Your task to perform on an android device: What's on my calendar today? Image 0: 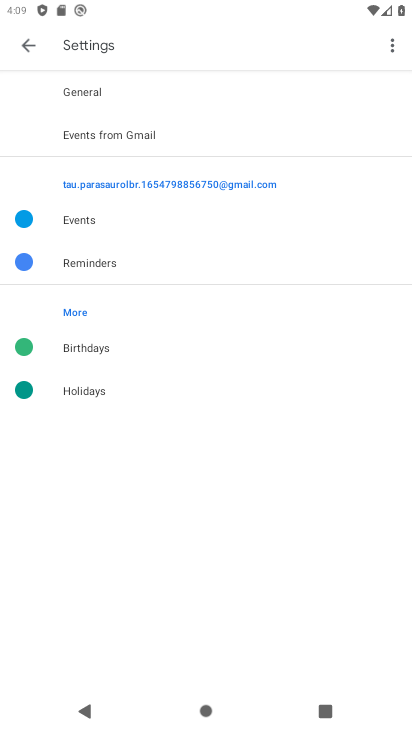
Step 0: press home button
Your task to perform on an android device: What's on my calendar today? Image 1: 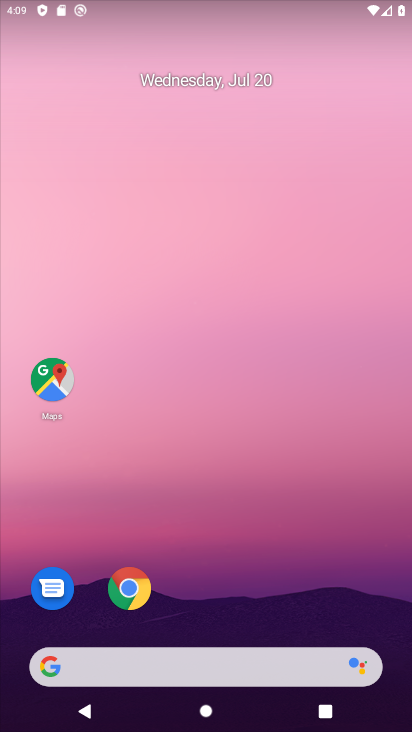
Step 1: drag from (235, 628) to (279, 112)
Your task to perform on an android device: What's on my calendar today? Image 2: 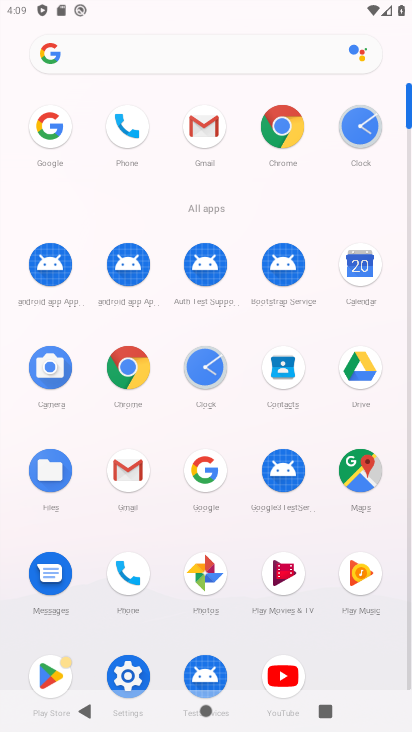
Step 2: click (356, 261)
Your task to perform on an android device: What's on my calendar today? Image 3: 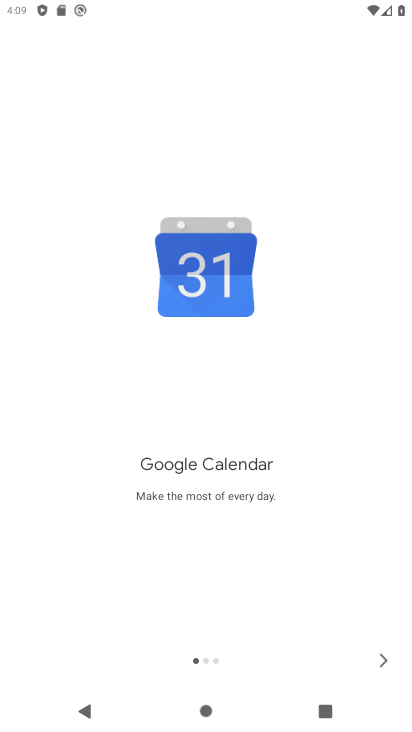
Step 3: click (375, 653)
Your task to perform on an android device: What's on my calendar today? Image 4: 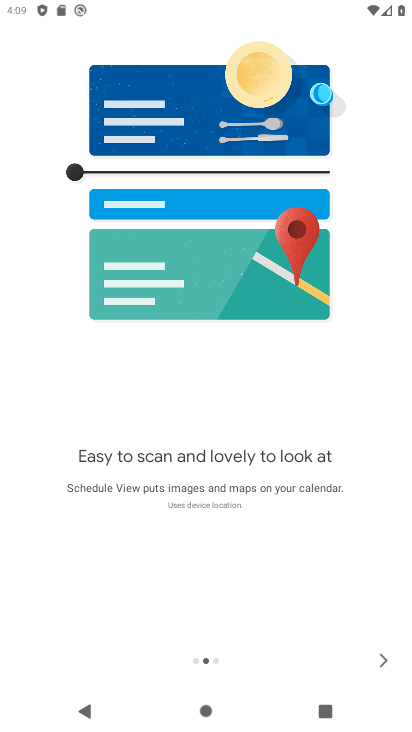
Step 4: click (393, 652)
Your task to perform on an android device: What's on my calendar today? Image 5: 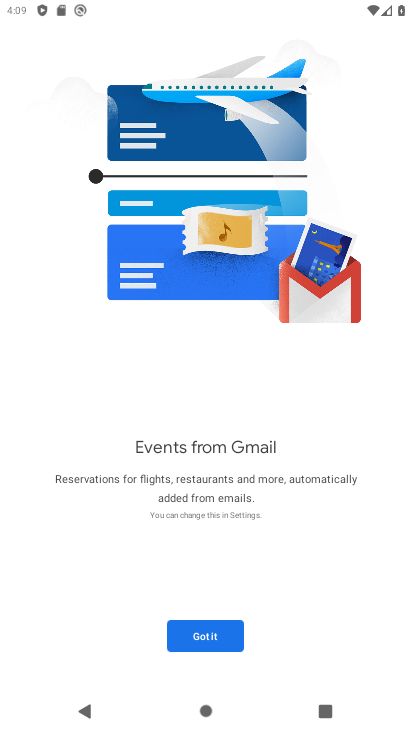
Step 5: click (206, 637)
Your task to perform on an android device: What's on my calendar today? Image 6: 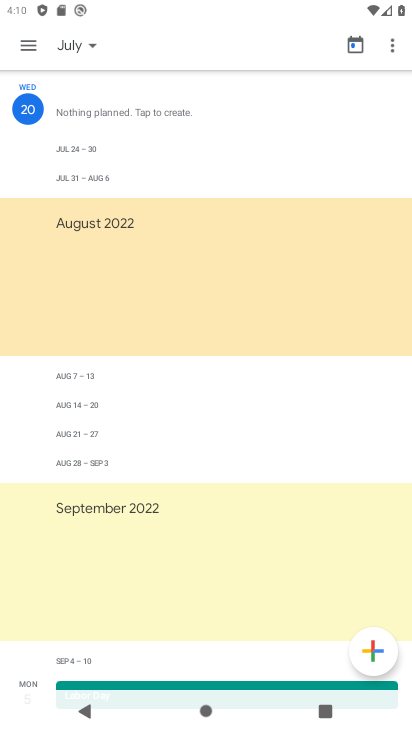
Step 6: click (83, 42)
Your task to perform on an android device: What's on my calendar today? Image 7: 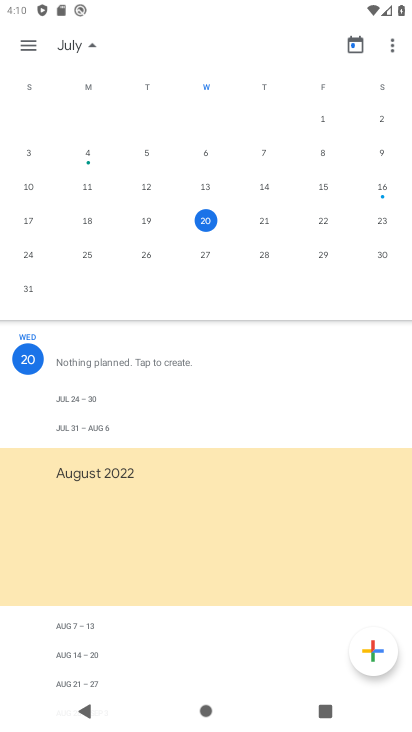
Step 7: click (200, 216)
Your task to perform on an android device: What's on my calendar today? Image 8: 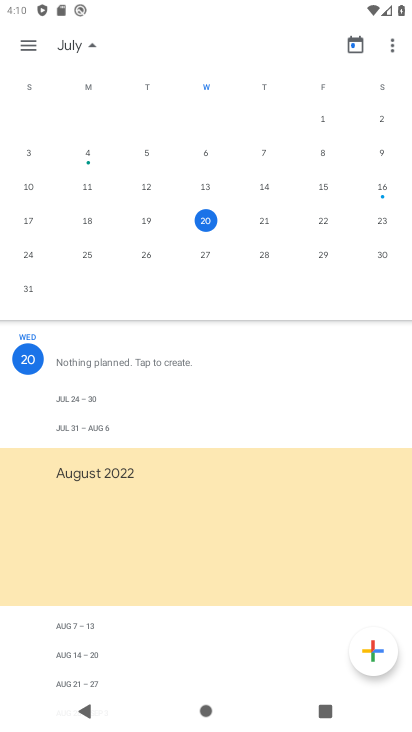
Step 8: click (202, 216)
Your task to perform on an android device: What's on my calendar today? Image 9: 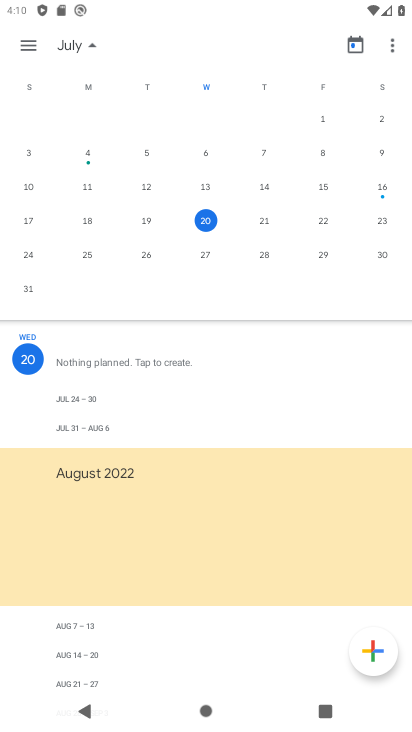
Step 9: click (88, 41)
Your task to perform on an android device: What's on my calendar today? Image 10: 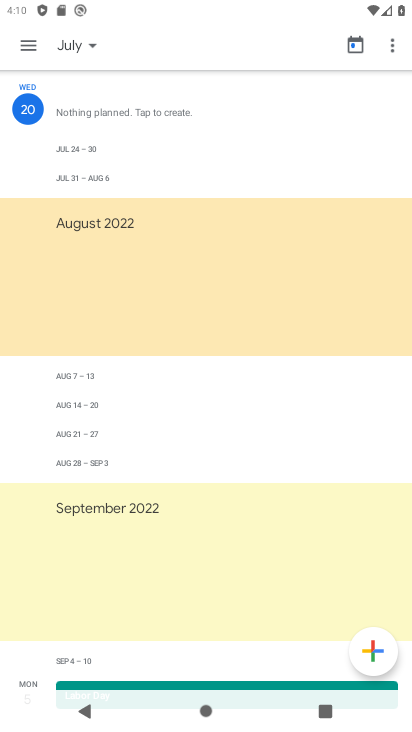
Step 10: click (40, 113)
Your task to perform on an android device: What's on my calendar today? Image 11: 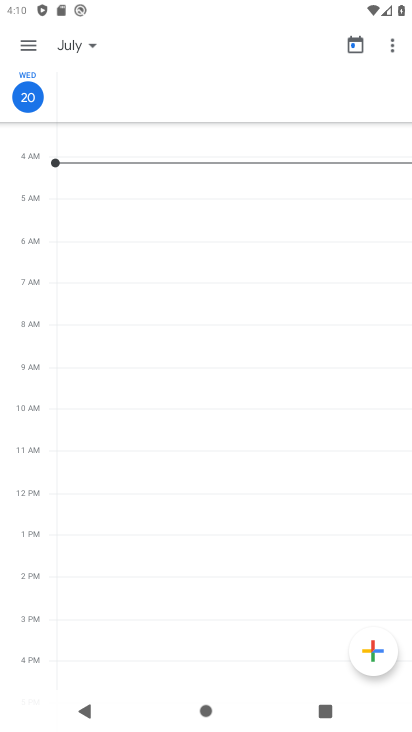
Step 11: task complete